Your task to perform on an android device: see creations saved in the google photos Image 0: 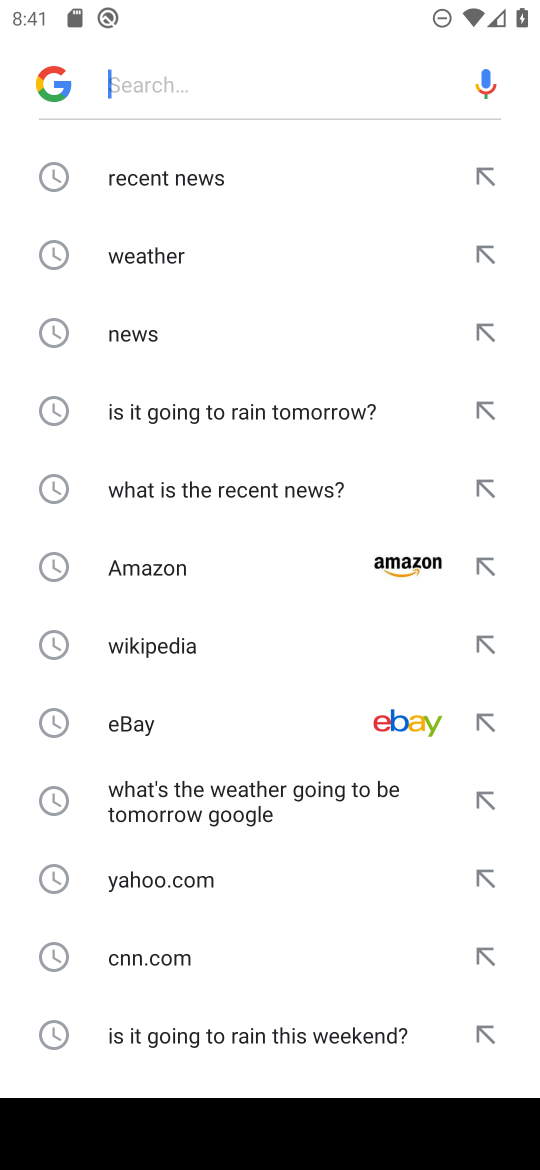
Step 0: press home button
Your task to perform on an android device: see creations saved in the google photos Image 1: 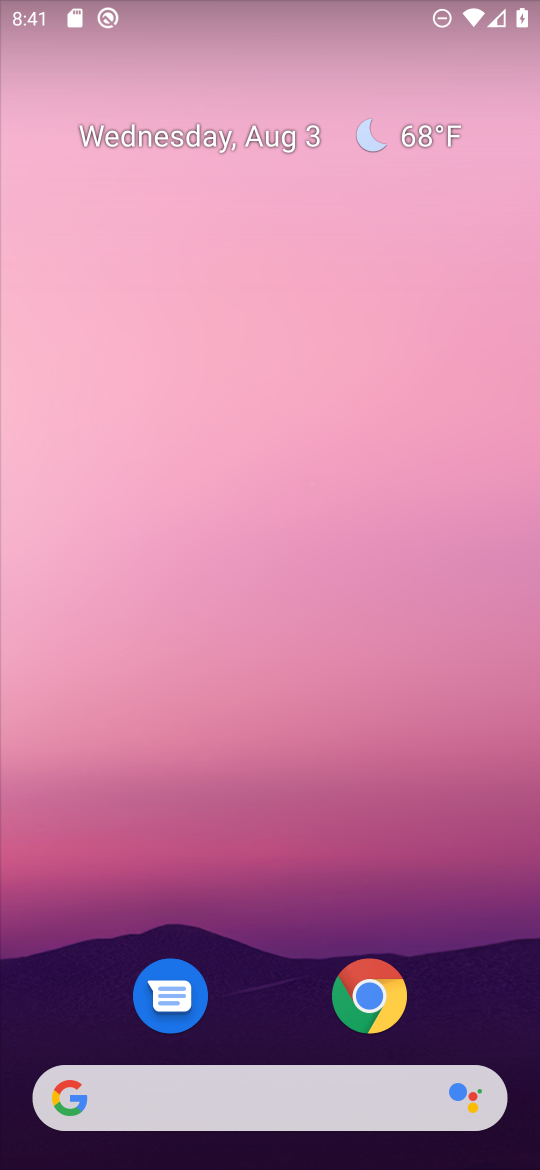
Step 1: drag from (317, 802) to (335, 0)
Your task to perform on an android device: see creations saved in the google photos Image 2: 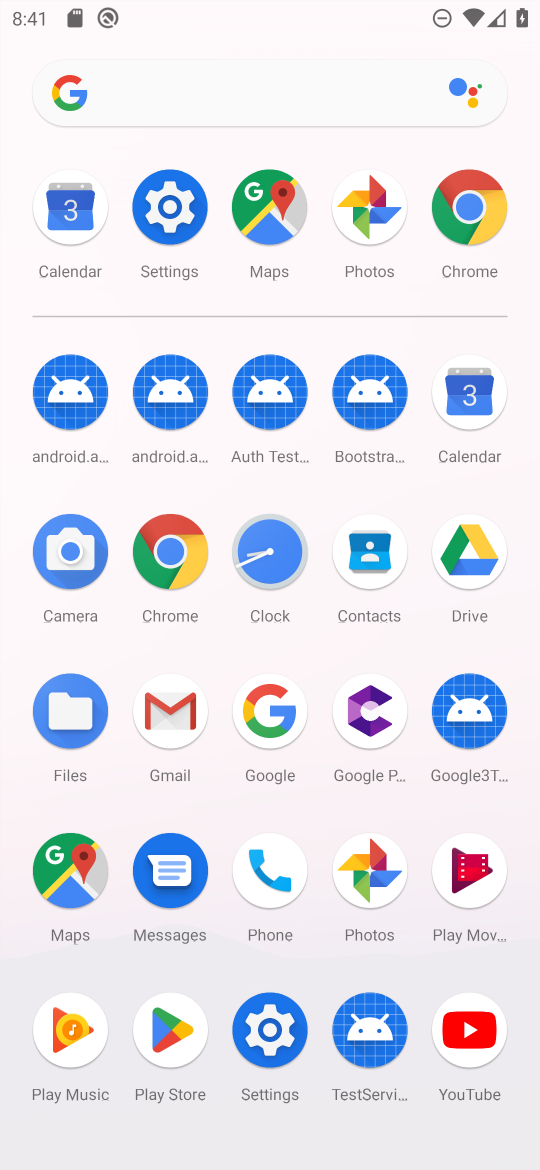
Step 2: click (377, 216)
Your task to perform on an android device: see creations saved in the google photos Image 3: 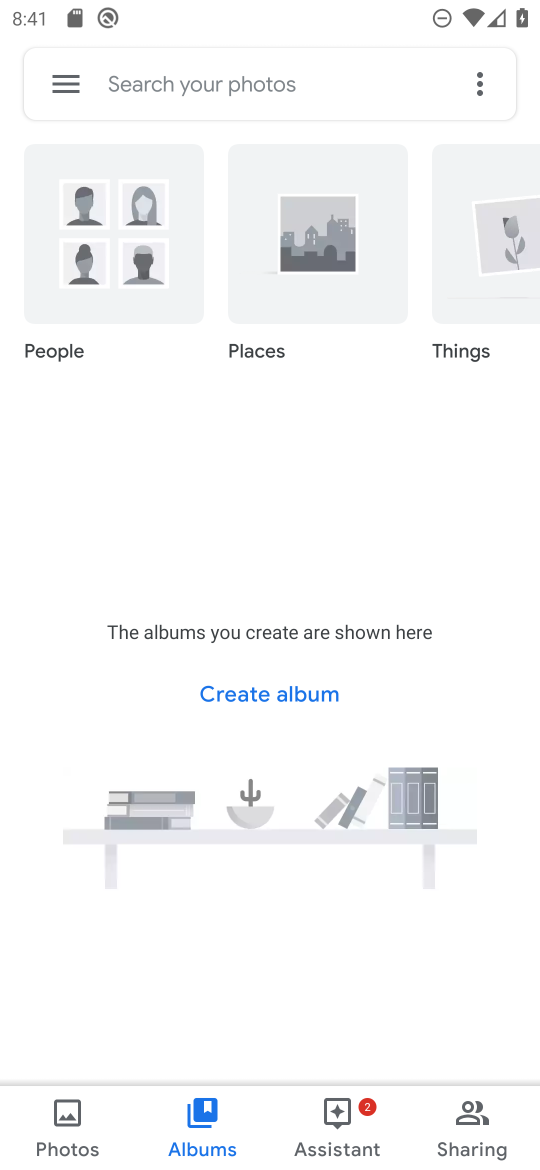
Step 3: click (316, 72)
Your task to perform on an android device: see creations saved in the google photos Image 4: 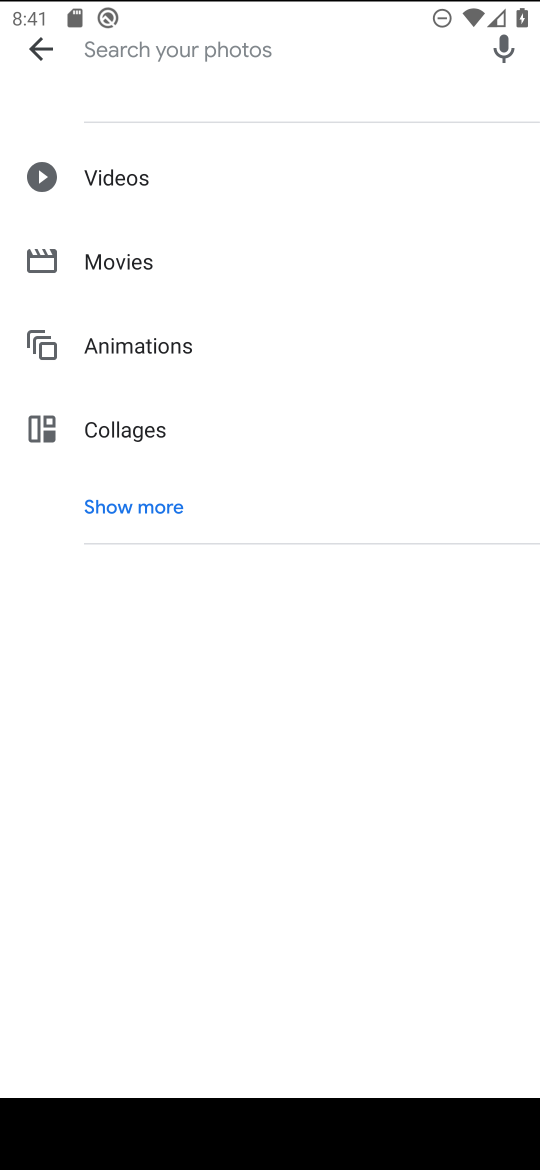
Step 4: click (177, 505)
Your task to perform on an android device: see creations saved in the google photos Image 5: 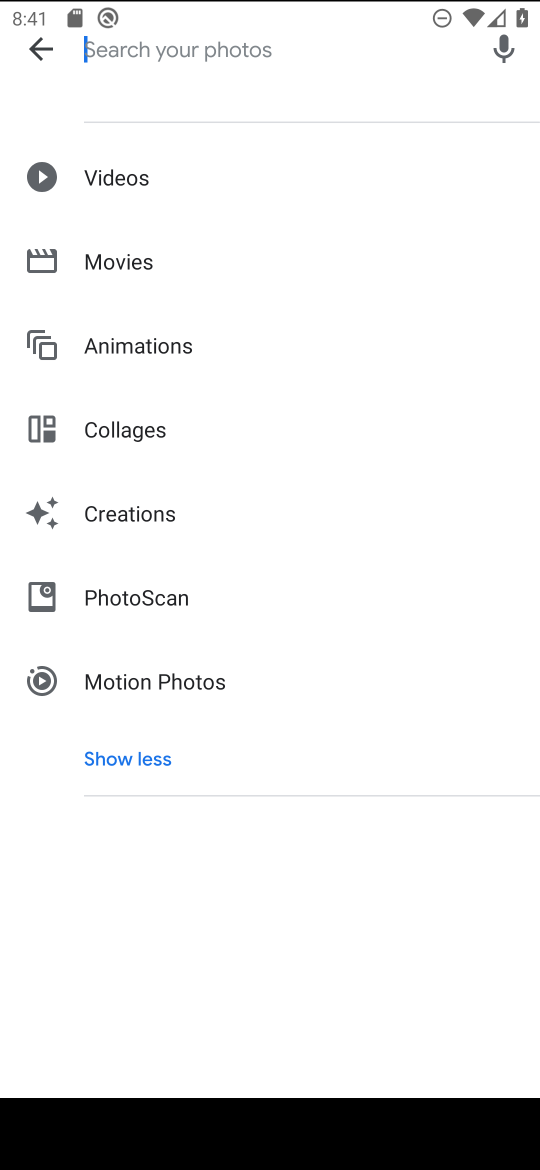
Step 5: click (170, 512)
Your task to perform on an android device: see creations saved in the google photos Image 6: 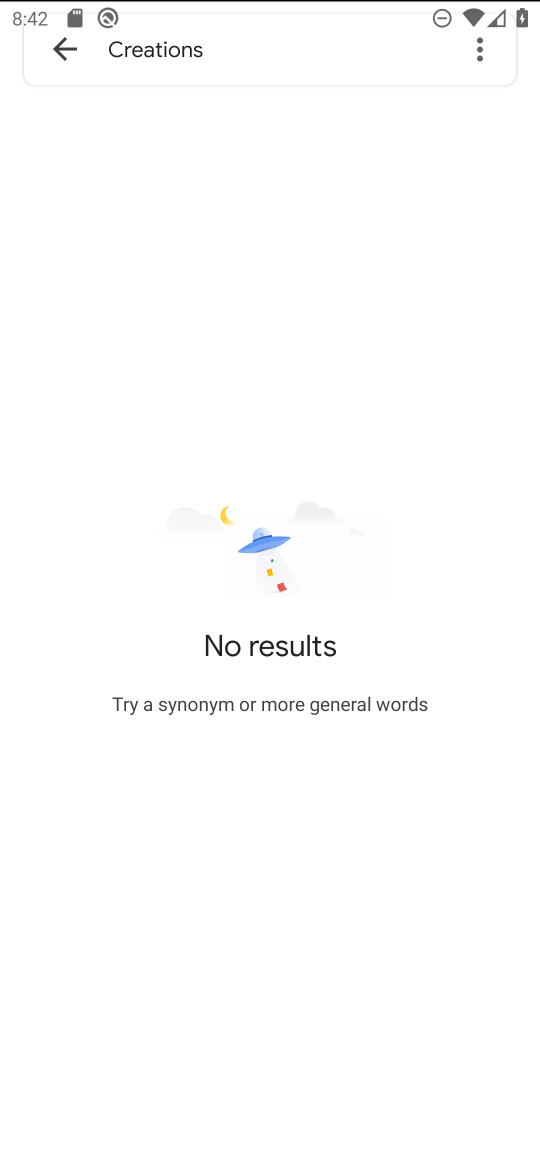
Step 6: task complete